Your task to perform on an android device: turn on the 24-hour format for clock Image 0: 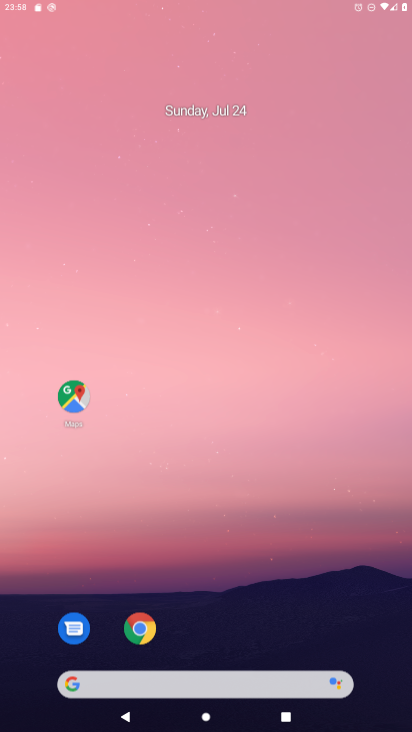
Step 0: click (242, 360)
Your task to perform on an android device: turn on the 24-hour format for clock Image 1: 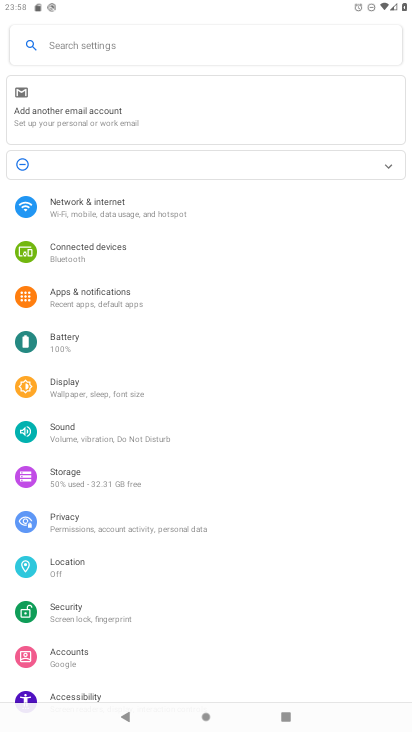
Step 1: drag from (190, 586) to (192, 172)
Your task to perform on an android device: turn on the 24-hour format for clock Image 2: 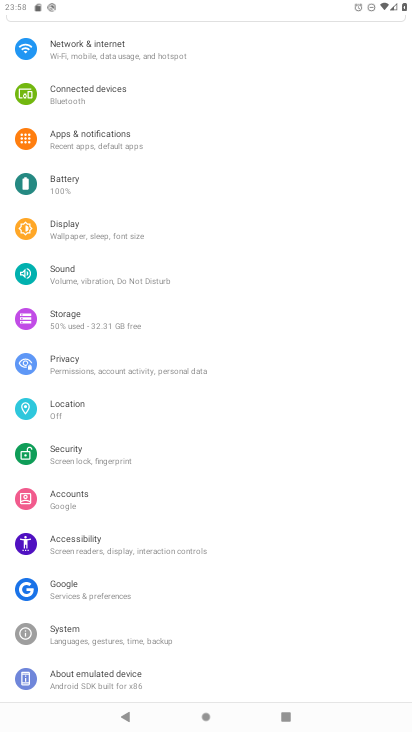
Step 2: press home button
Your task to perform on an android device: turn on the 24-hour format for clock Image 3: 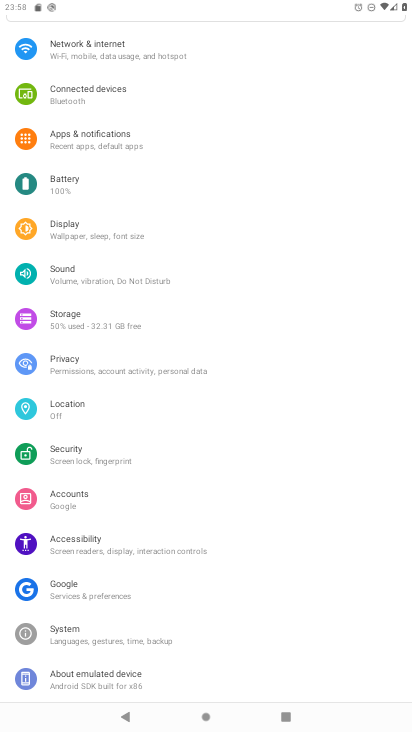
Step 3: press home button
Your task to perform on an android device: turn on the 24-hour format for clock Image 4: 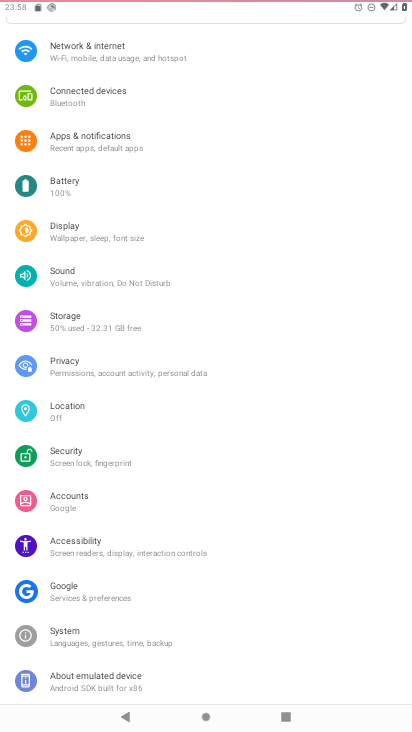
Step 4: click (259, 69)
Your task to perform on an android device: turn on the 24-hour format for clock Image 5: 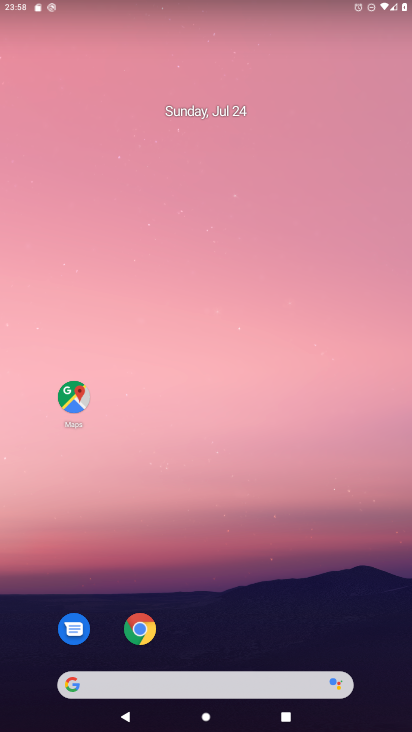
Step 5: drag from (182, 651) to (205, 241)
Your task to perform on an android device: turn on the 24-hour format for clock Image 6: 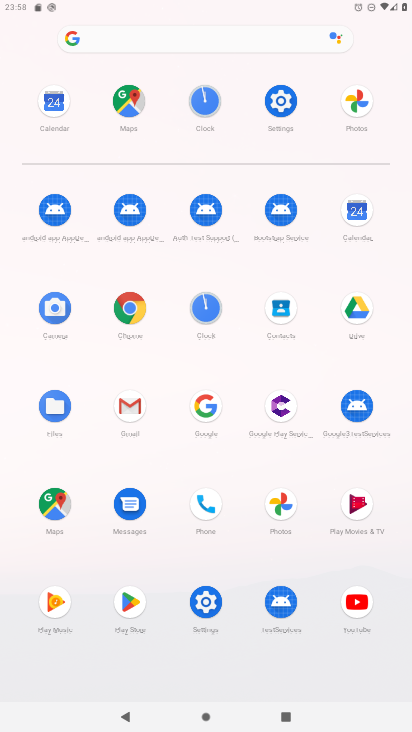
Step 6: click (210, 311)
Your task to perform on an android device: turn on the 24-hour format for clock Image 7: 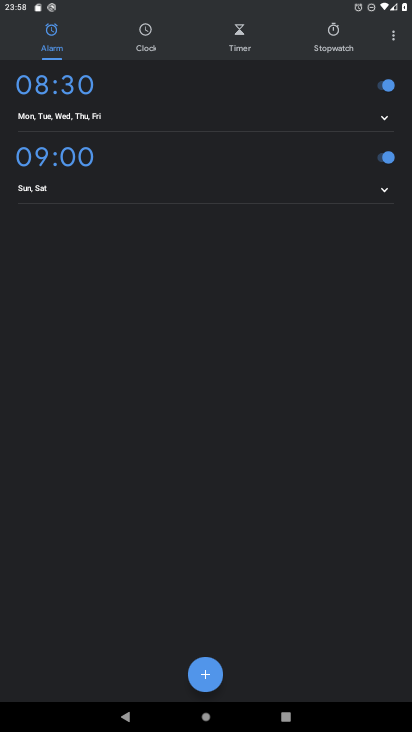
Step 7: click (395, 31)
Your task to perform on an android device: turn on the 24-hour format for clock Image 8: 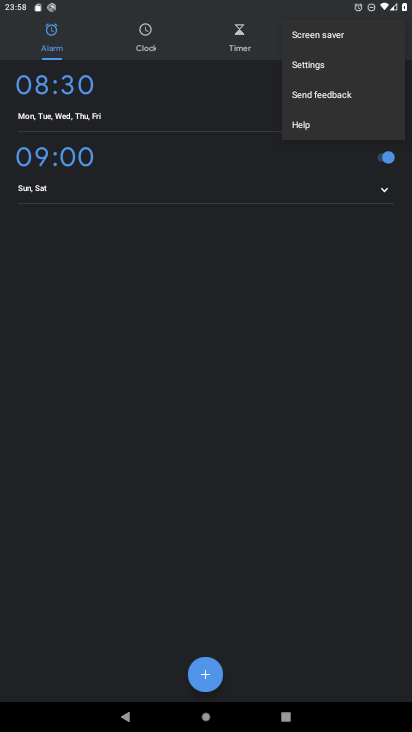
Step 8: click (328, 70)
Your task to perform on an android device: turn on the 24-hour format for clock Image 9: 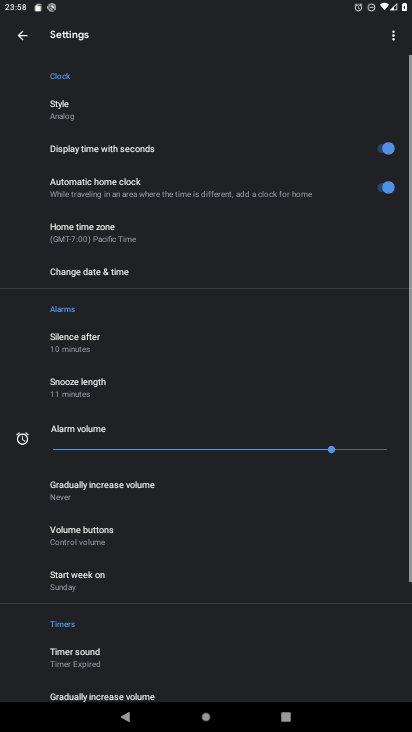
Step 9: click (152, 270)
Your task to perform on an android device: turn on the 24-hour format for clock Image 10: 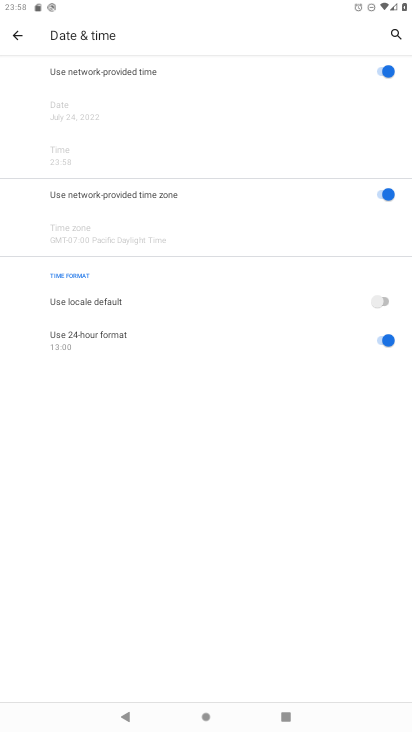
Step 10: task complete